Your task to perform on an android device: Open eBay Image 0: 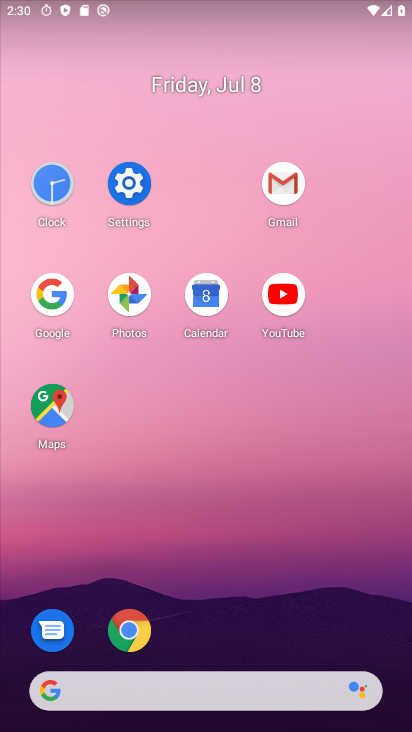
Step 0: click (131, 631)
Your task to perform on an android device: Open eBay Image 1: 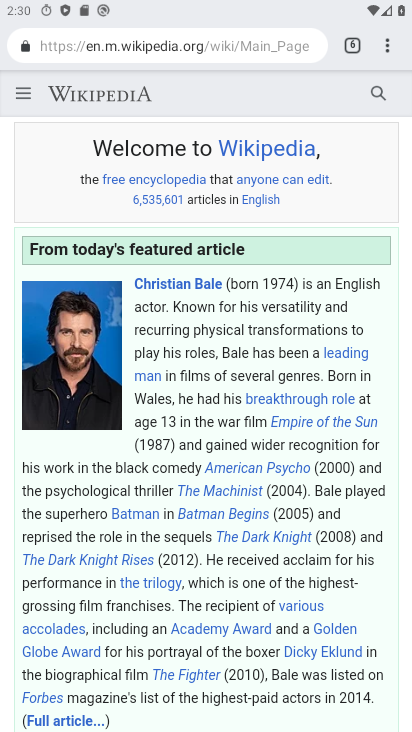
Step 1: click (353, 53)
Your task to perform on an android device: Open eBay Image 2: 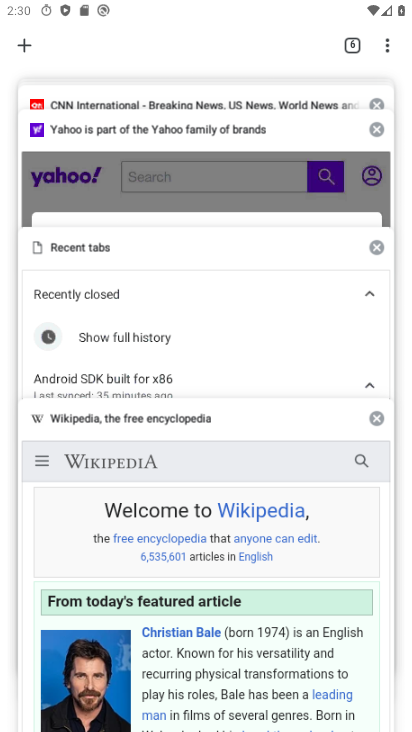
Step 2: drag from (140, 172) to (176, 474)
Your task to perform on an android device: Open eBay Image 3: 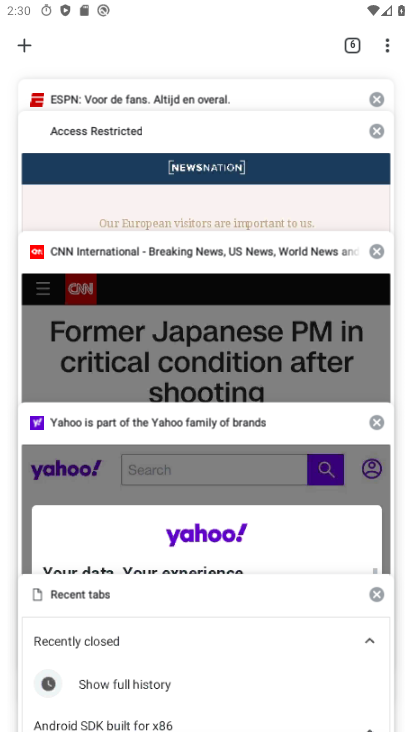
Step 3: drag from (155, 172) to (145, 358)
Your task to perform on an android device: Open eBay Image 4: 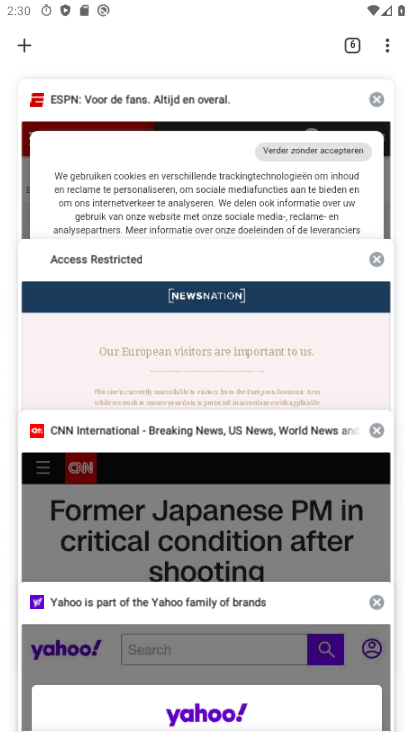
Step 4: click (31, 47)
Your task to perform on an android device: Open eBay Image 5: 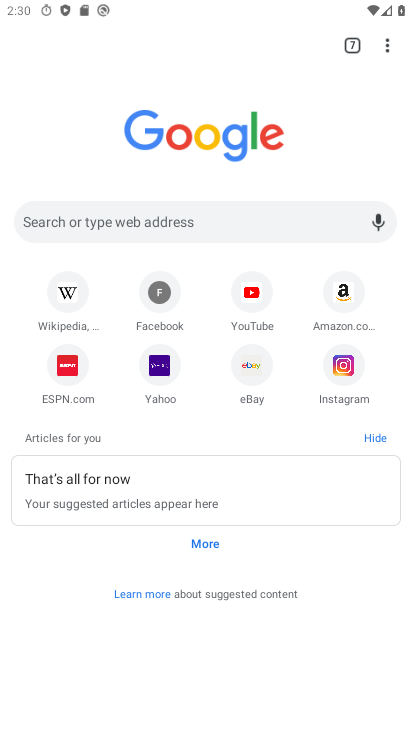
Step 5: click (263, 359)
Your task to perform on an android device: Open eBay Image 6: 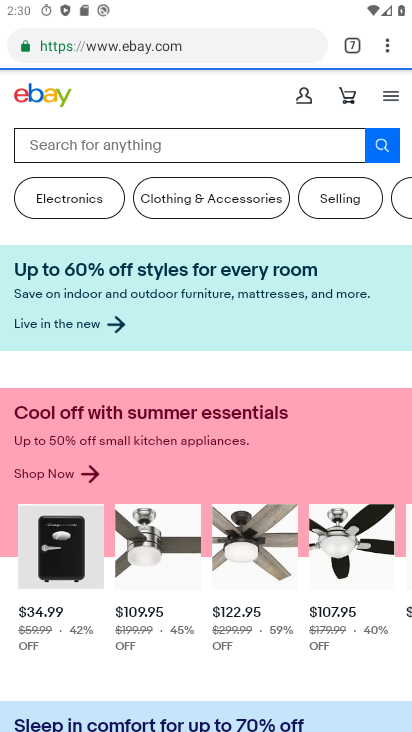
Step 6: task complete